Your task to perform on an android device: open the mobile data screen to see how much data has been used Image 0: 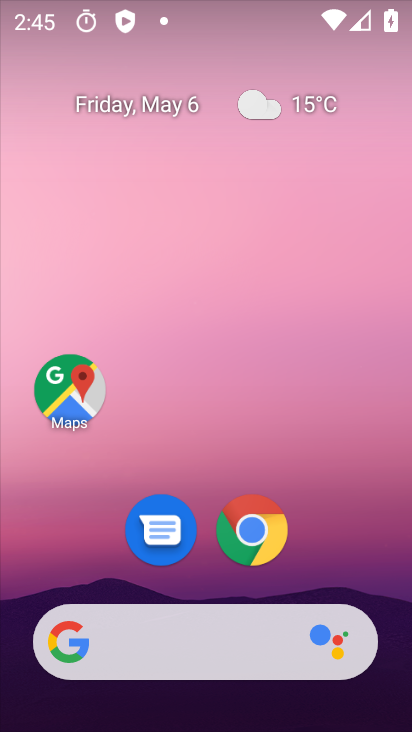
Step 0: drag from (377, 494) to (373, 147)
Your task to perform on an android device: open the mobile data screen to see how much data has been used Image 1: 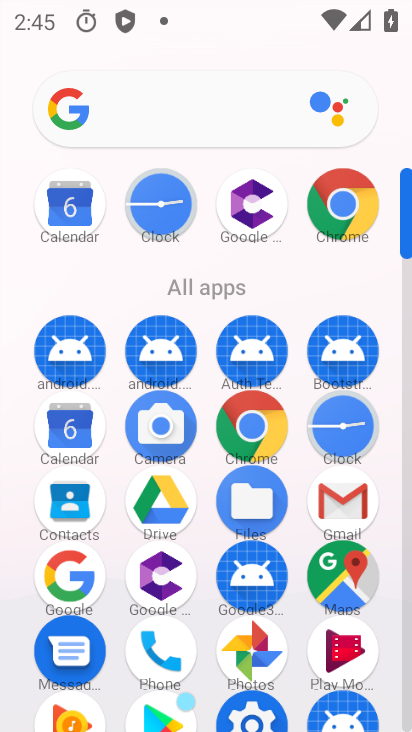
Step 1: click (233, 719)
Your task to perform on an android device: open the mobile data screen to see how much data has been used Image 2: 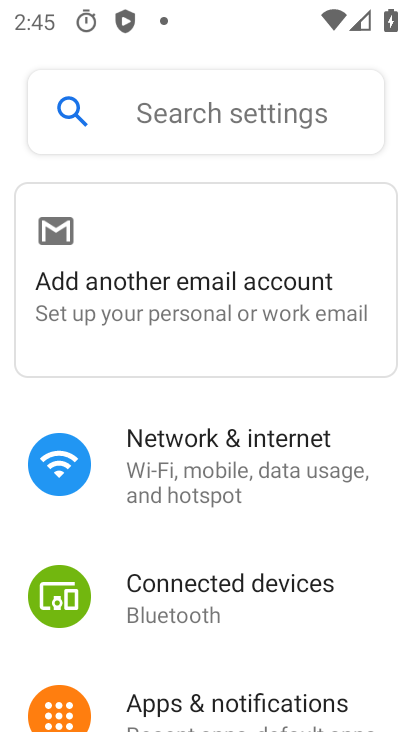
Step 2: drag from (224, 663) to (267, 354)
Your task to perform on an android device: open the mobile data screen to see how much data has been used Image 3: 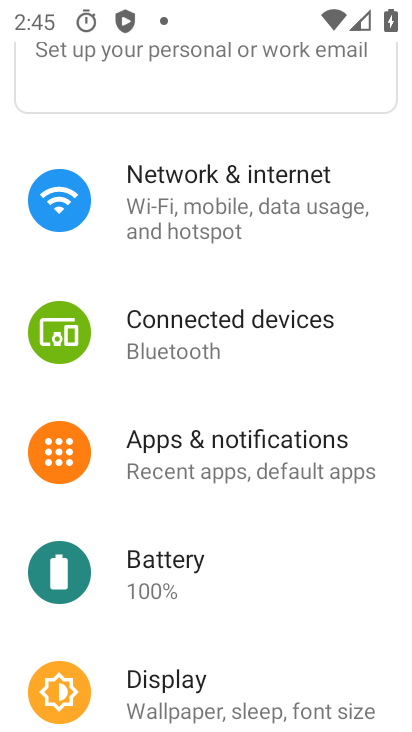
Step 3: click (228, 223)
Your task to perform on an android device: open the mobile data screen to see how much data has been used Image 4: 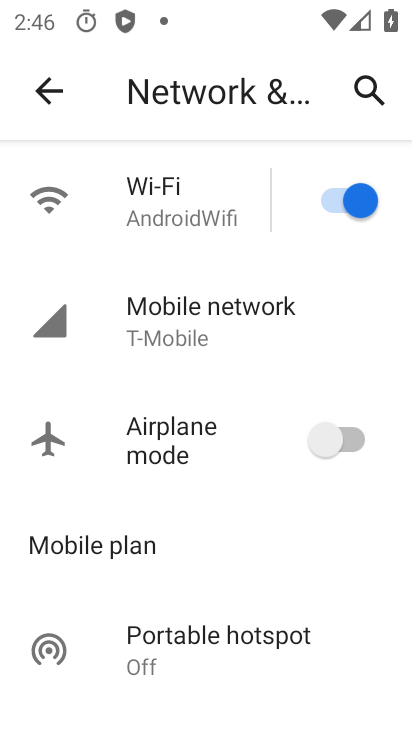
Step 4: click (152, 330)
Your task to perform on an android device: open the mobile data screen to see how much data has been used Image 5: 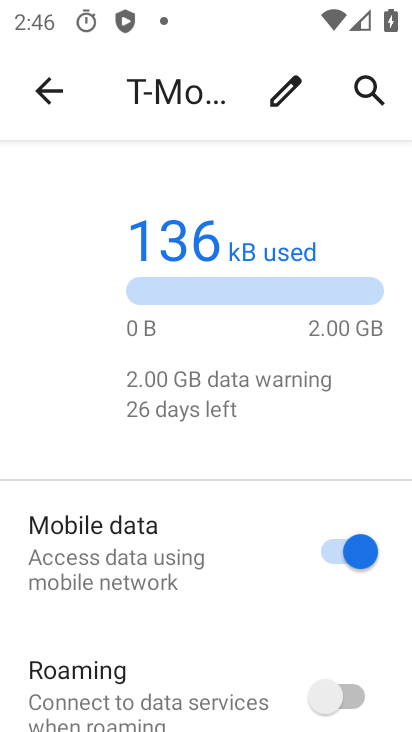
Step 5: task complete